Your task to perform on an android device: Open Yahoo.com Image 0: 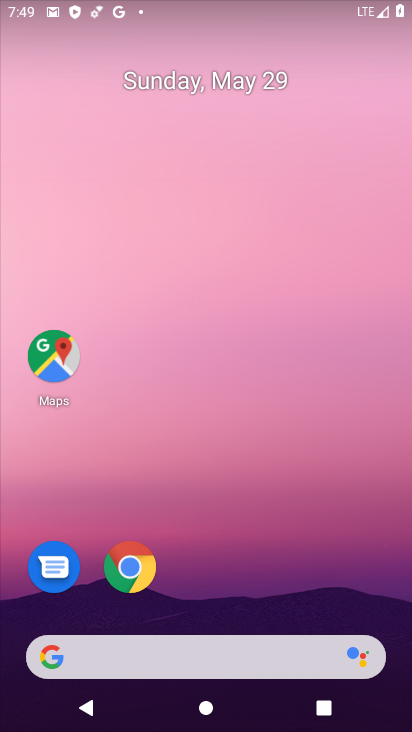
Step 0: click (142, 559)
Your task to perform on an android device: Open Yahoo.com Image 1: 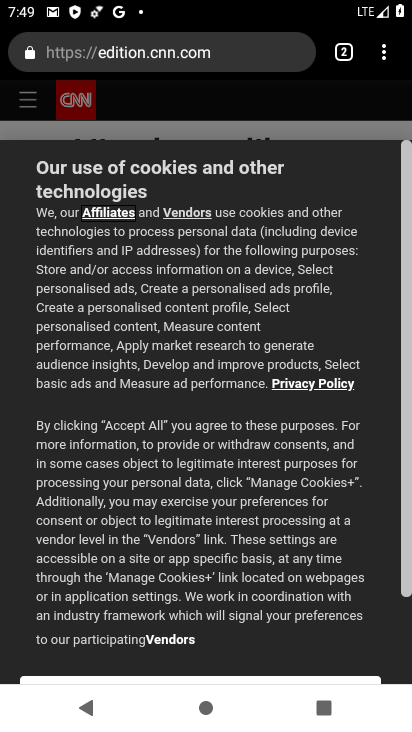
Step 1: click (383, 48)
Your task to perform on an android device: Open Yahoo.com Image 2: 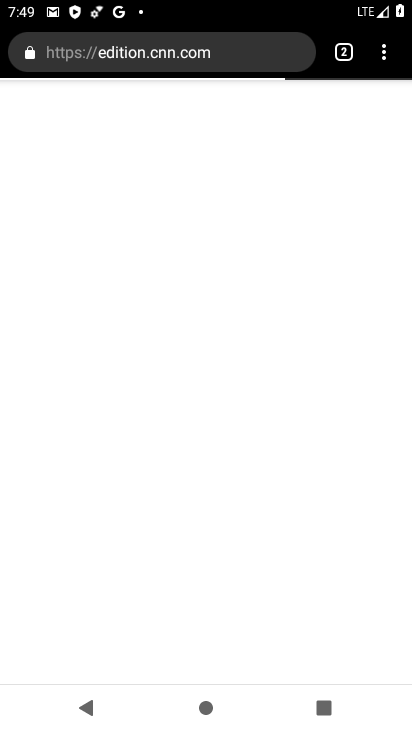
Step 2: click (377, 49)
Your task to perform on an android device: Open Yahoo.com Image 3: 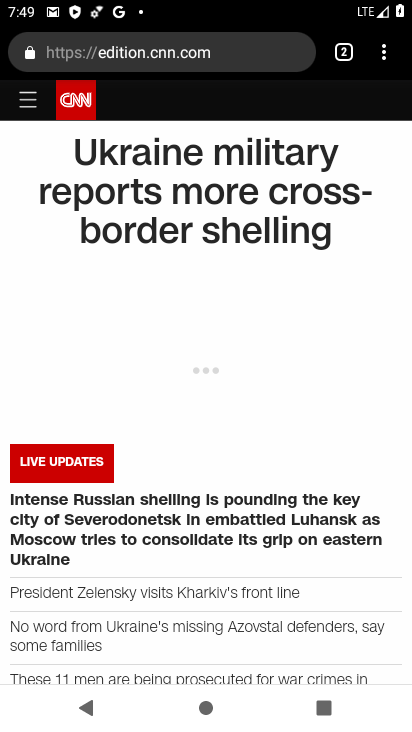
Step 3: click (381, 61)
Your task to perform on an android device: Open Yahoo.com Image 4: 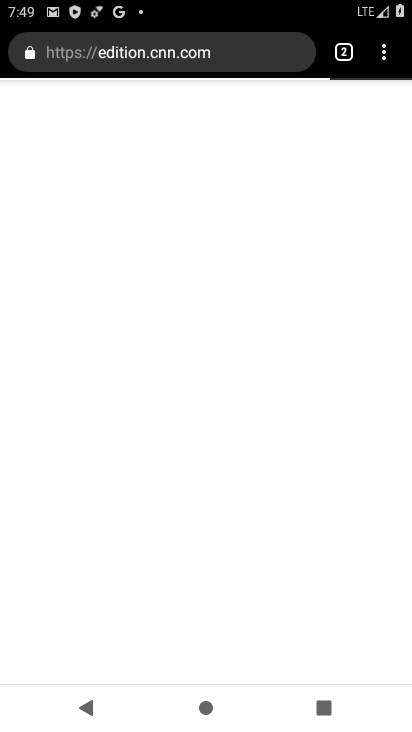
Step 4: click (374, 51)
Your task to perform on an android device: Open Yahoo.com Image 5: 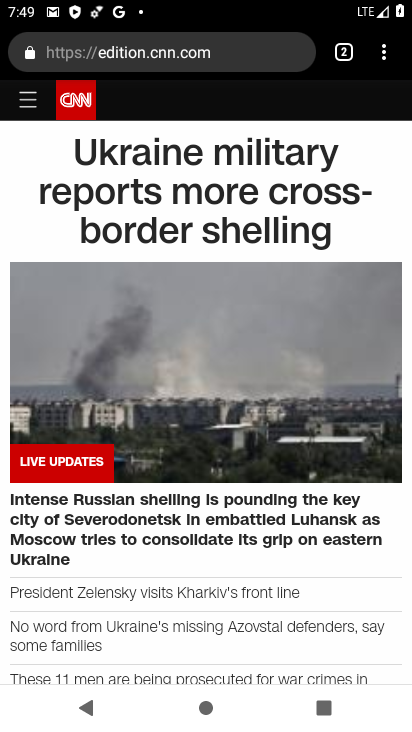
Step 5: click (372, 46)
Your task to perform on an android device: Open Yahoo.com Image 6: 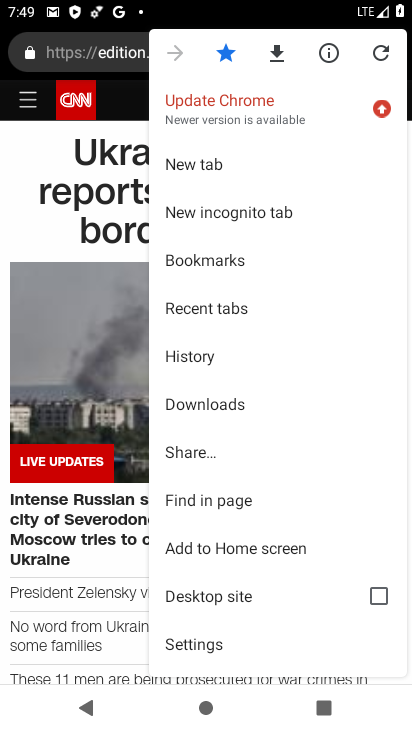
Step 6: click (238, 158)
Your task to perform on an android device: Open Yahoo.com Image 7: 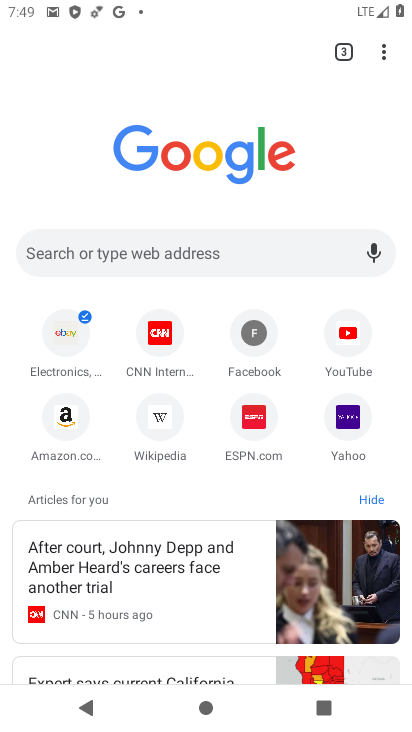
Step 7: click (355, 408)
Your task to perform on an android device: Open Yahoo.com Image 8: 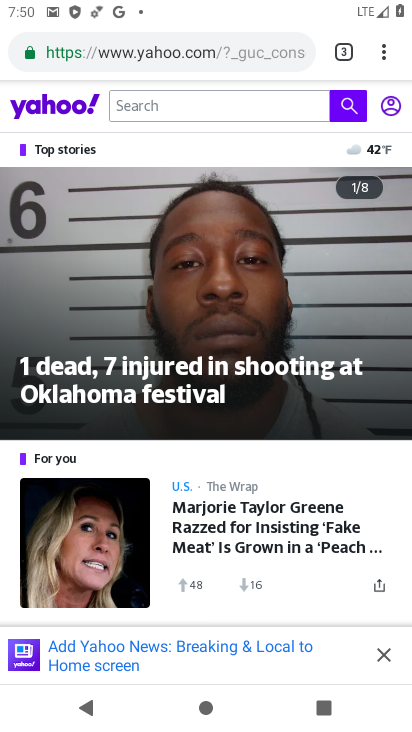
Step 8: task complete